Your task to perform on an android device: What's the weather going to be this weekend? Image 0: 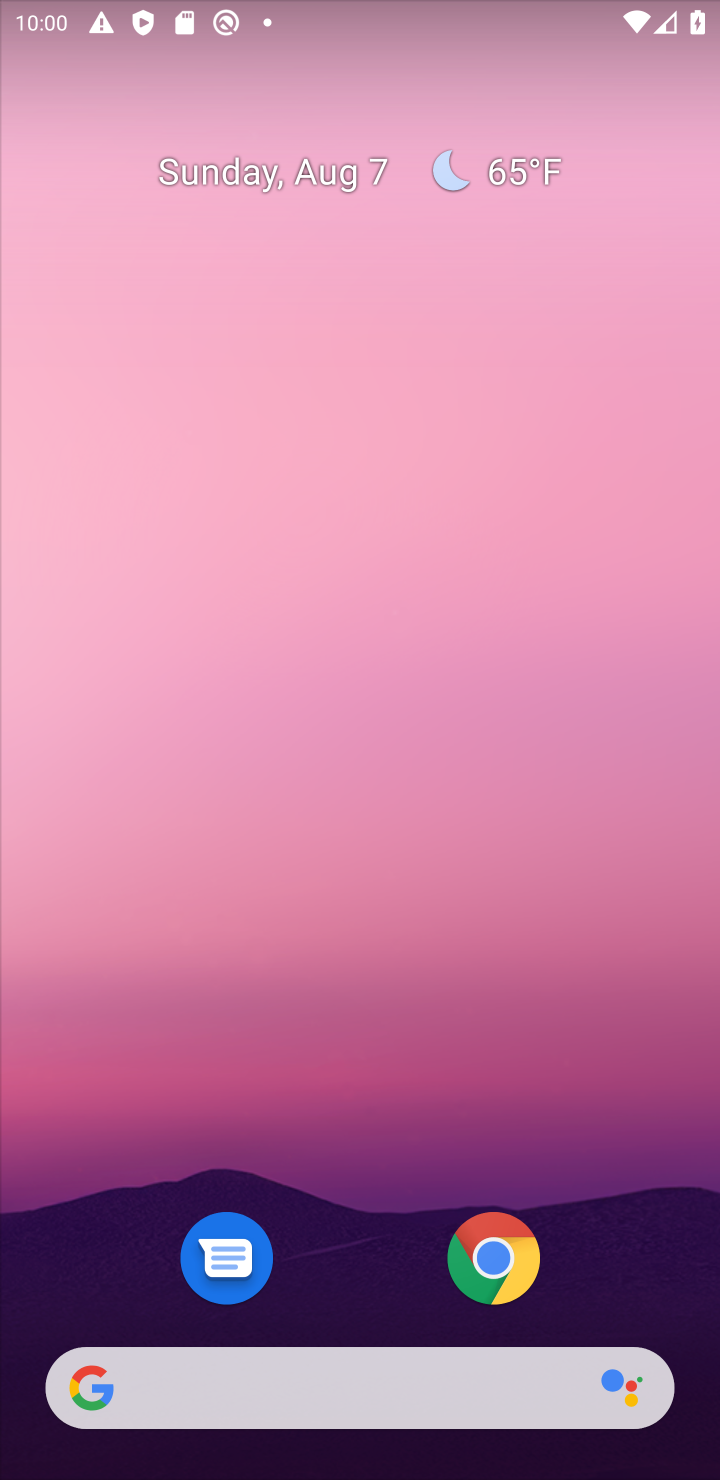
Step 0: drag from (609, 470) to (41, 800)
Your task to perform on an android device: What's the weather going to be this weekend? Image 1: 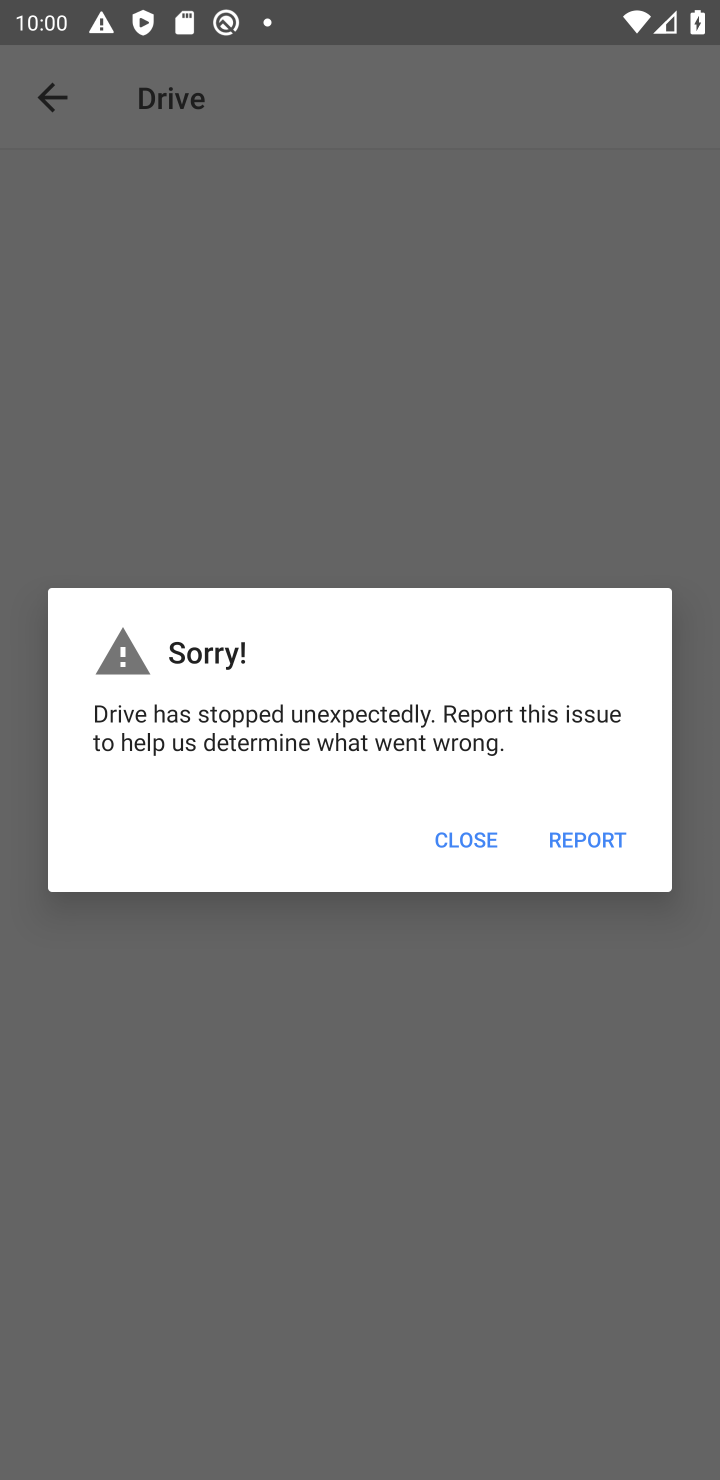
Step 1: press home button
Your task to perform on an android device: What's the weather going to be this weekend? Image 2: 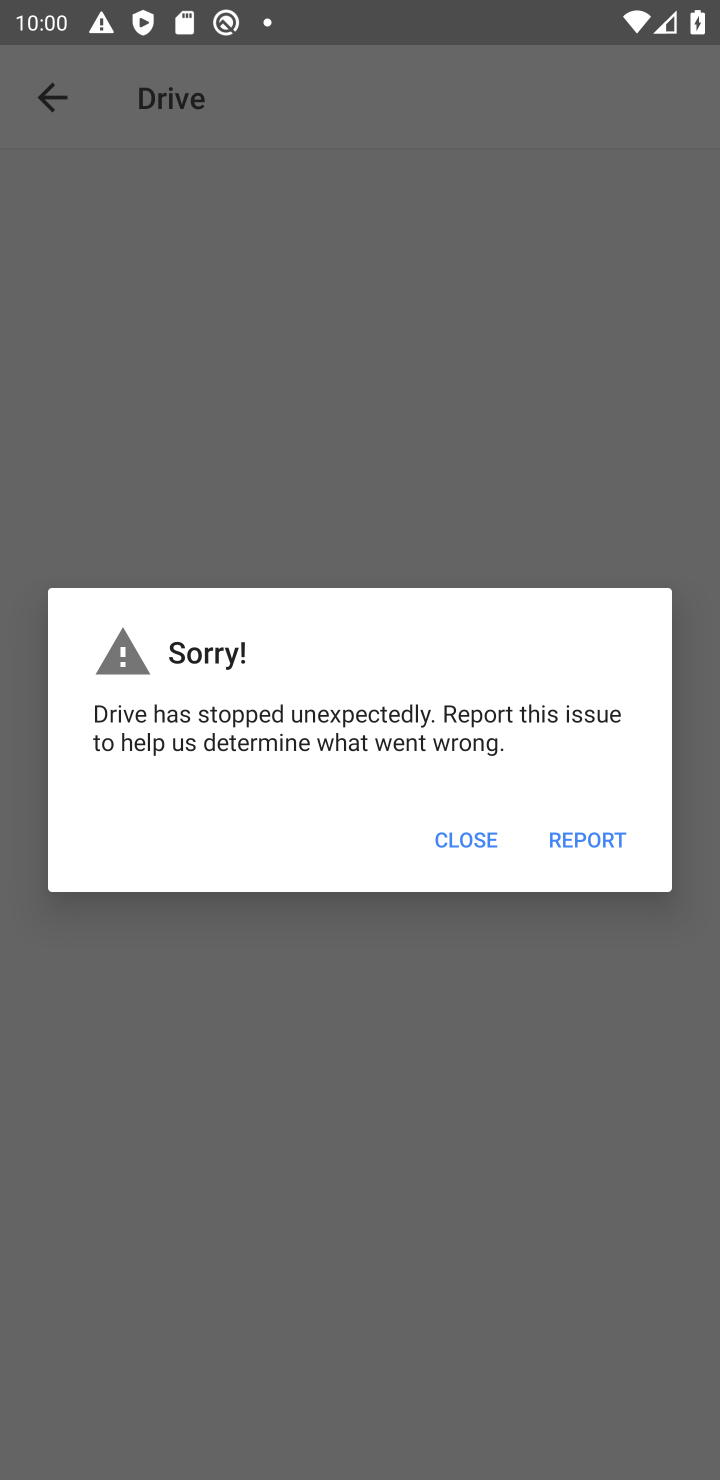
Step 2: press home button
Your task to perform on an android device: What's the weather going to be this weekend? Image 3: 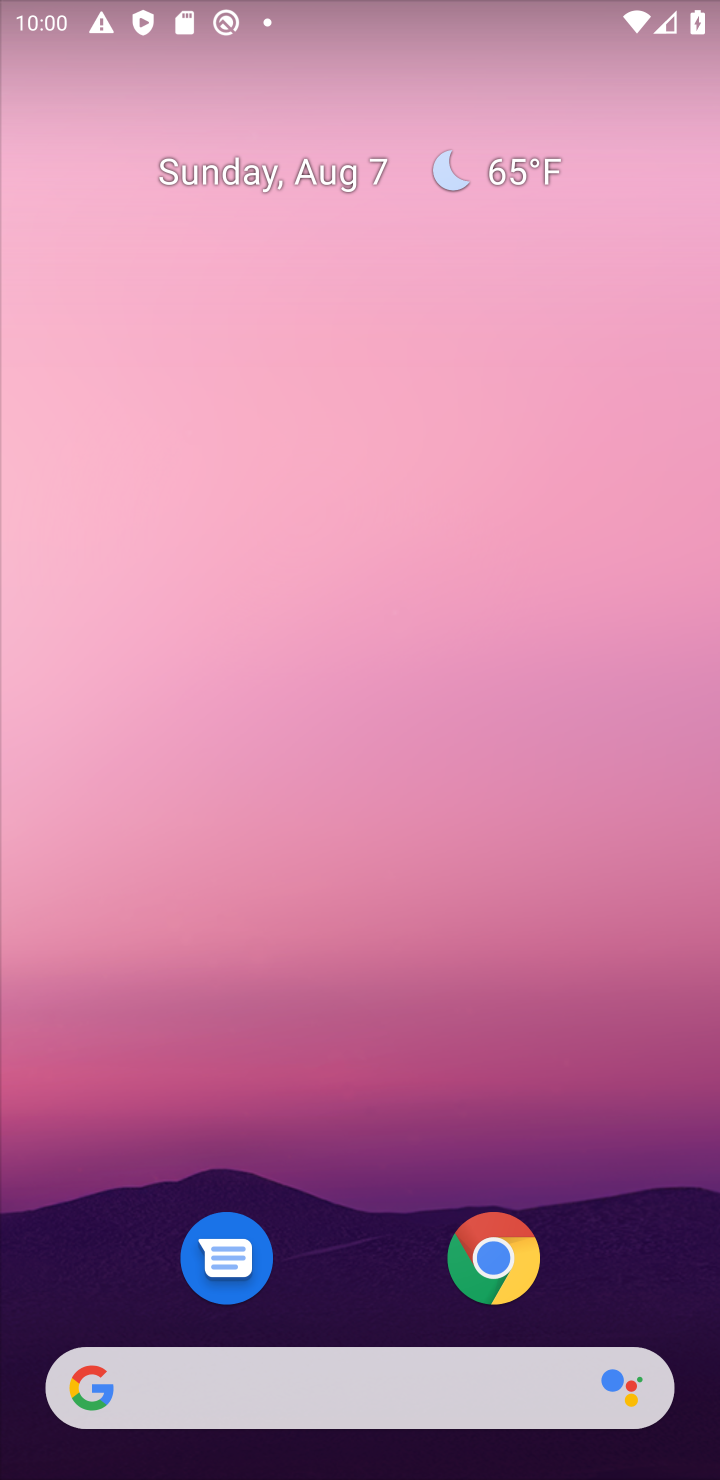
Step 3: drag from (297, 1138) to (155, 38)
Your task to perform on an android device: What's the weather going to be this weekend? Image 4: 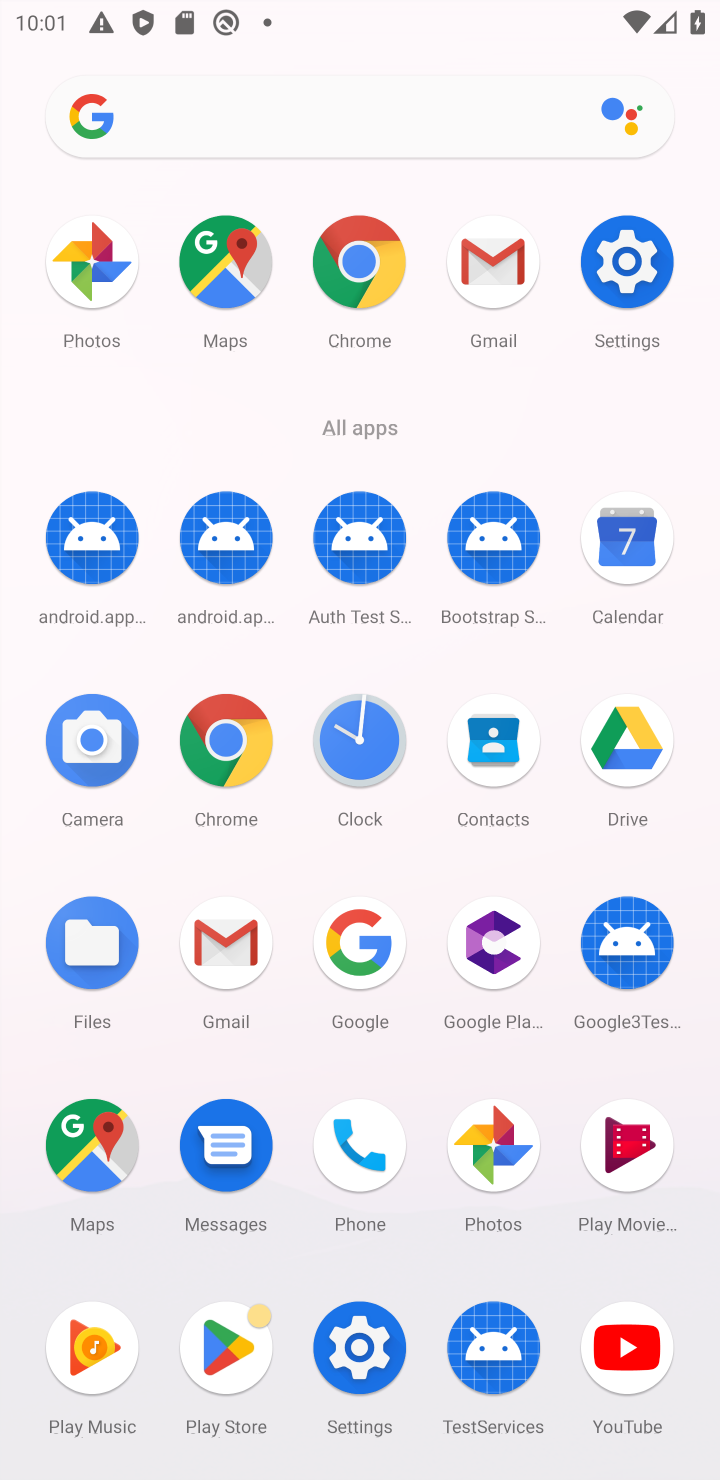
Step 4: click (383, 263)
Your task to perform on an android device: What's the weather going to be this weekend? Image 5: 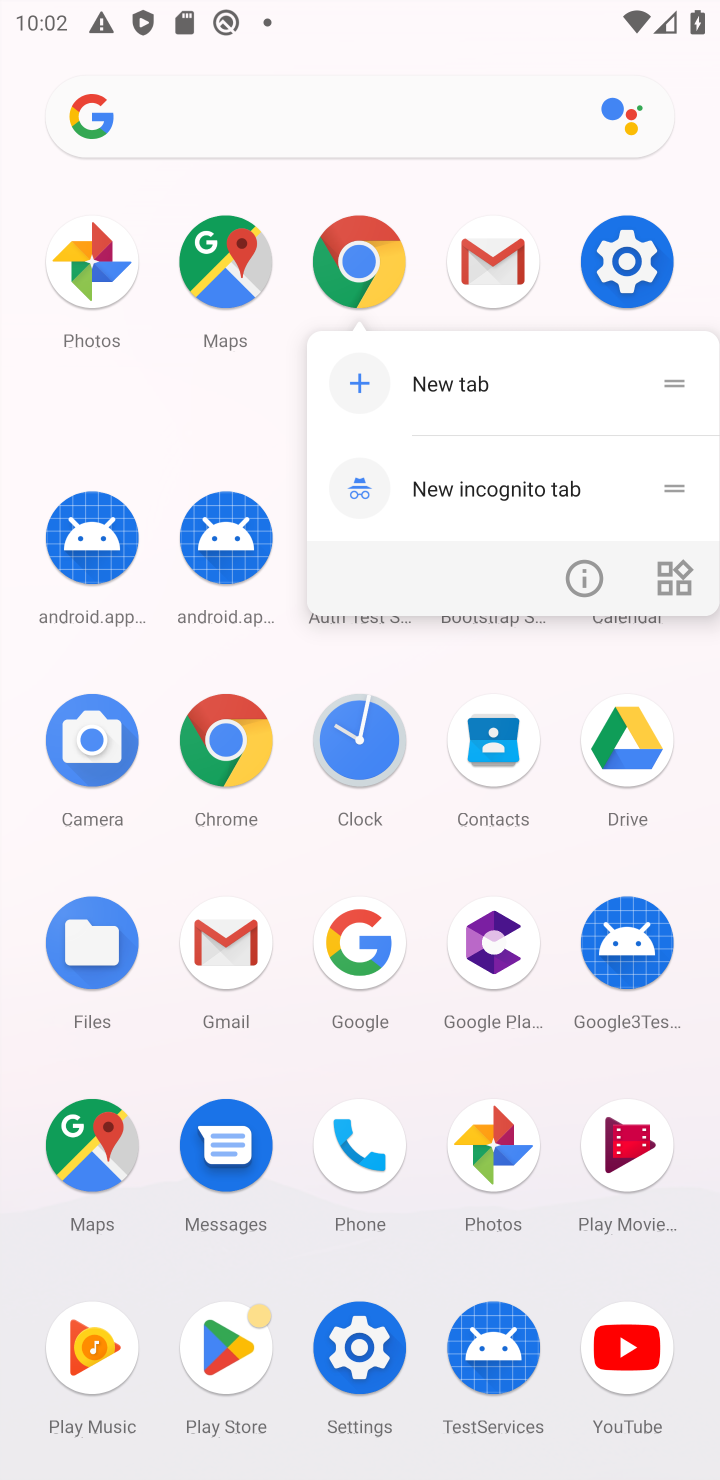
Step 5: click (372, 257)
Your task to perform on an android device: What's the weather going to be this weekend? Image 6: 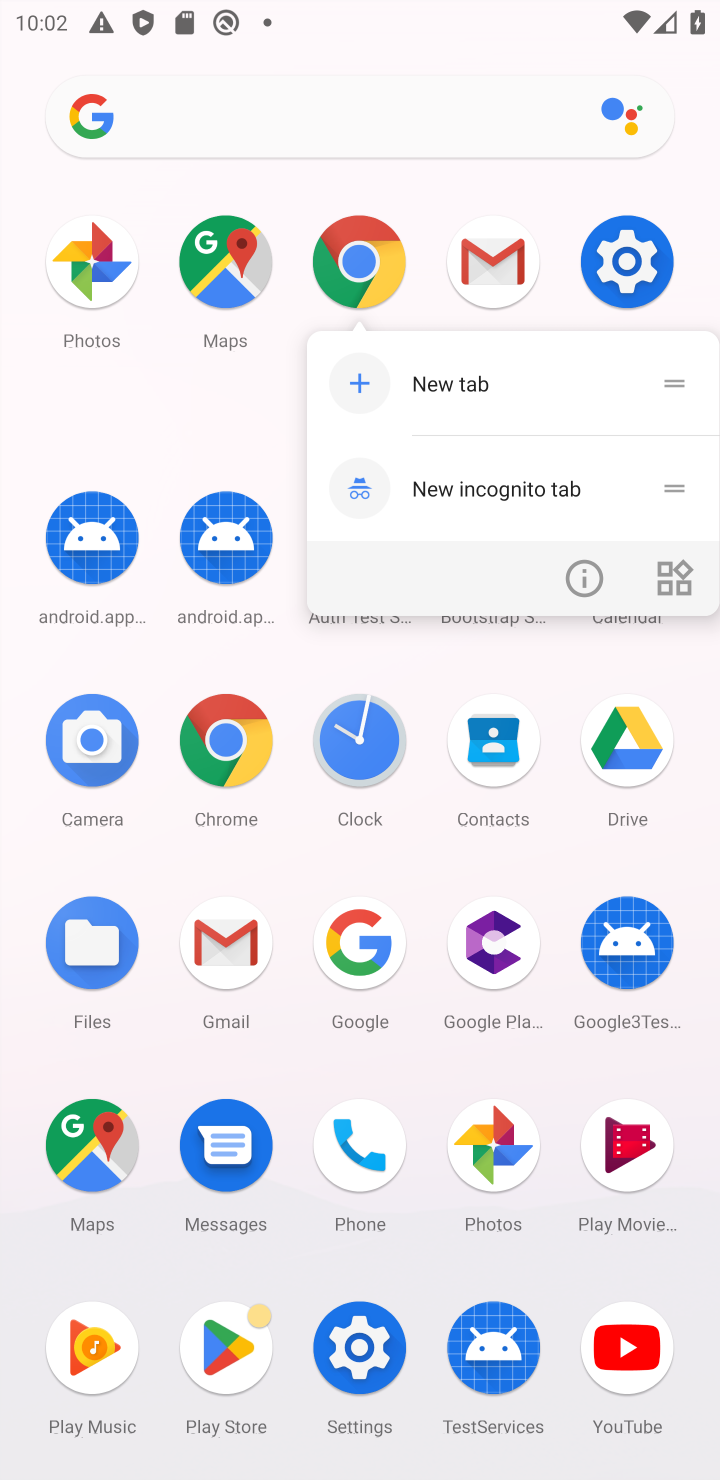
Step 6: click (372, 263)
Your task to perform on an android device: What's the weather going to be this weekend? Image 7: 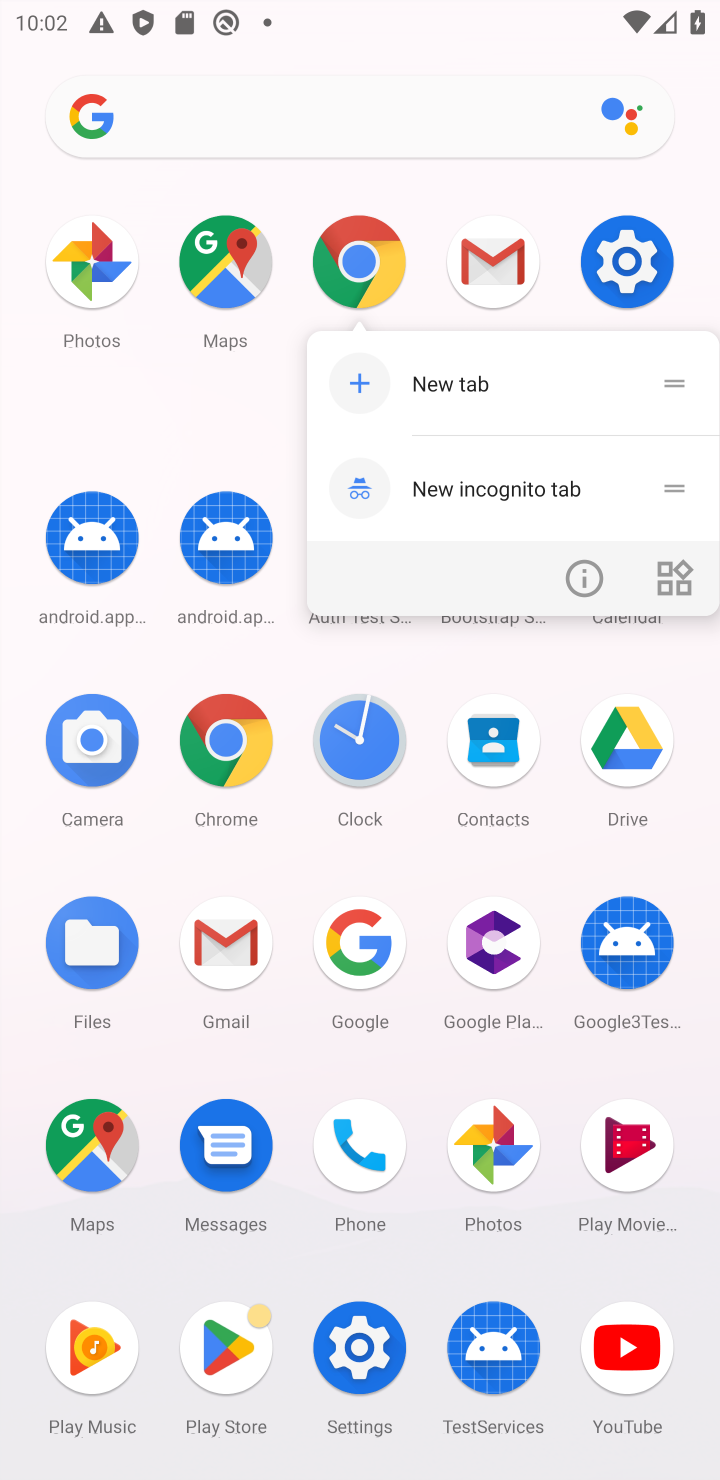
Step 7: click (372, 263)
Your task to perform on an android device: What's the weather going to be this weekend? Image 8: 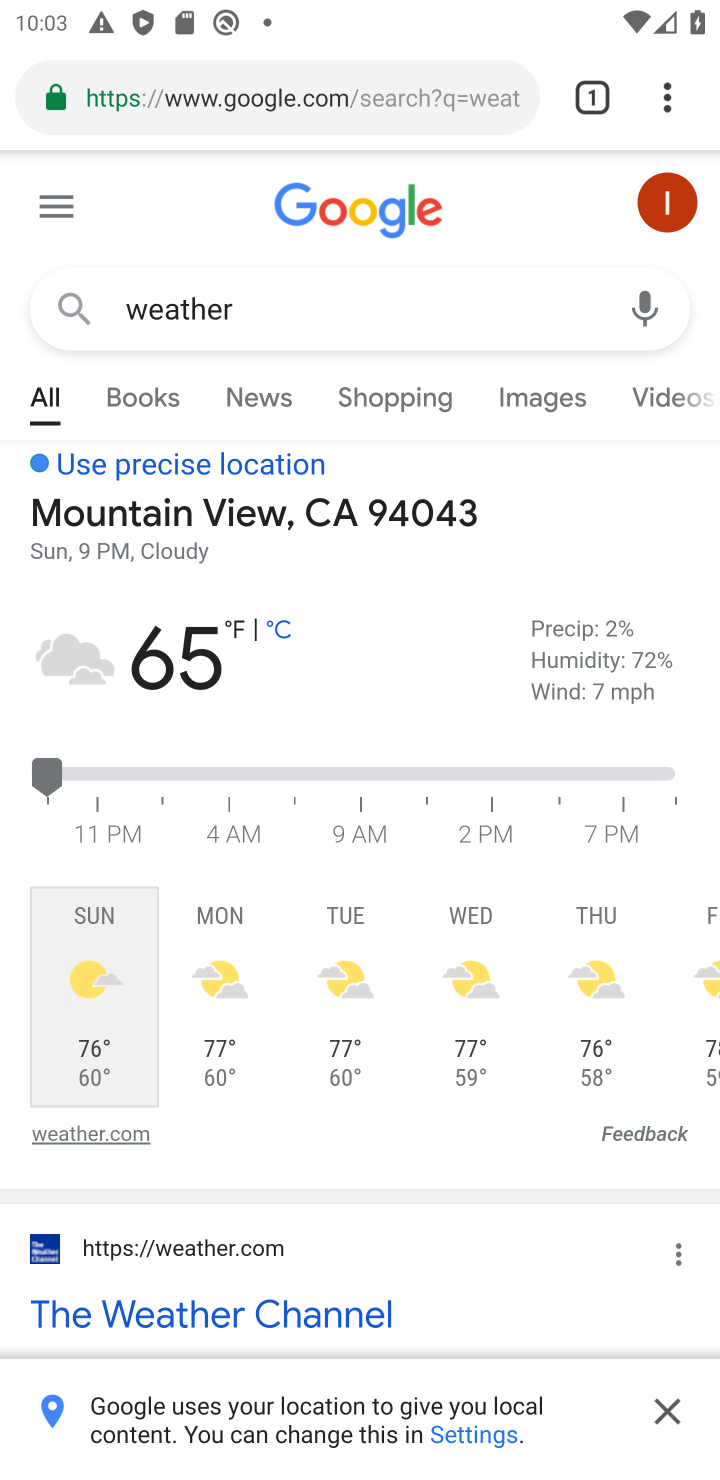
Step 8: click (405, 89)
Your task to perform on an android device: What's the weather going to be this weekend? Image 9: 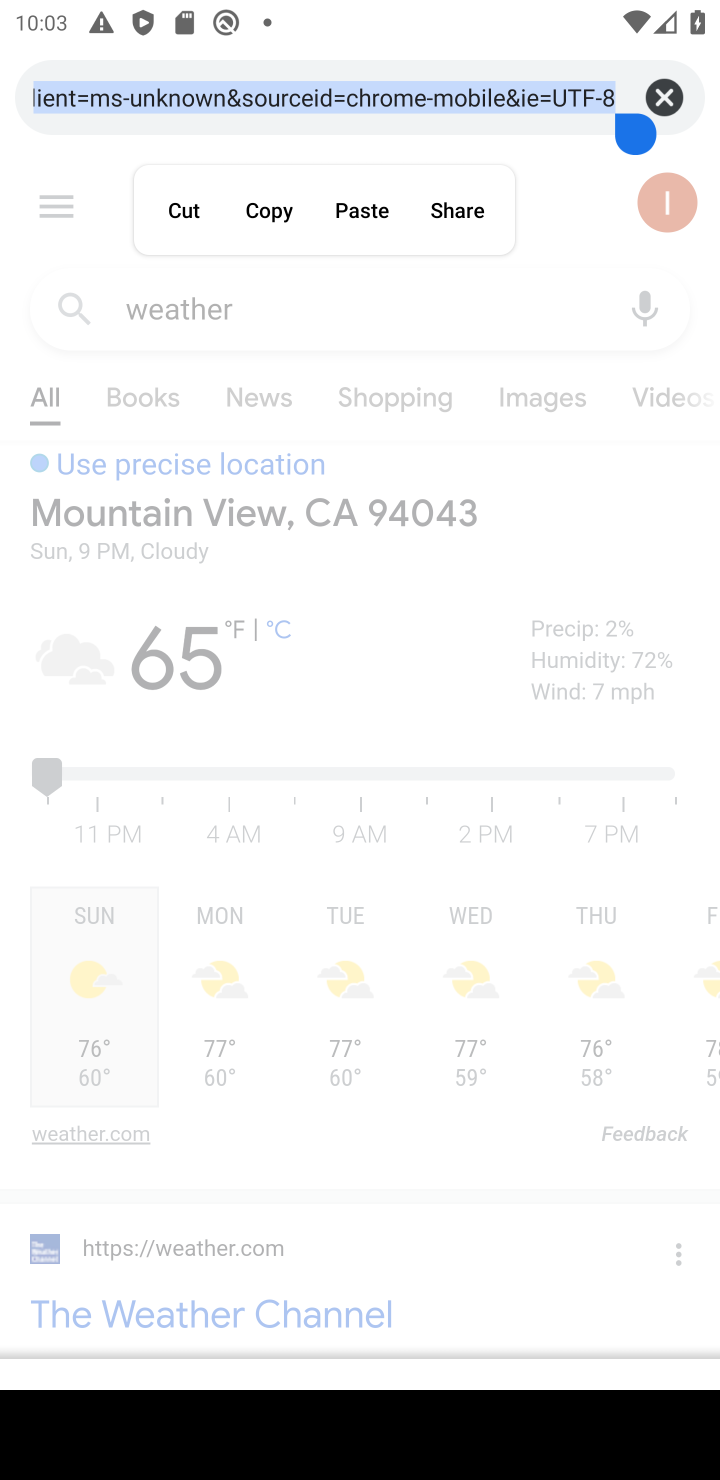
Step 9: type " What's the weather going to be this weekend?"
Your task to perform on an android device: What's the weather going to be this weekend? Image 10: 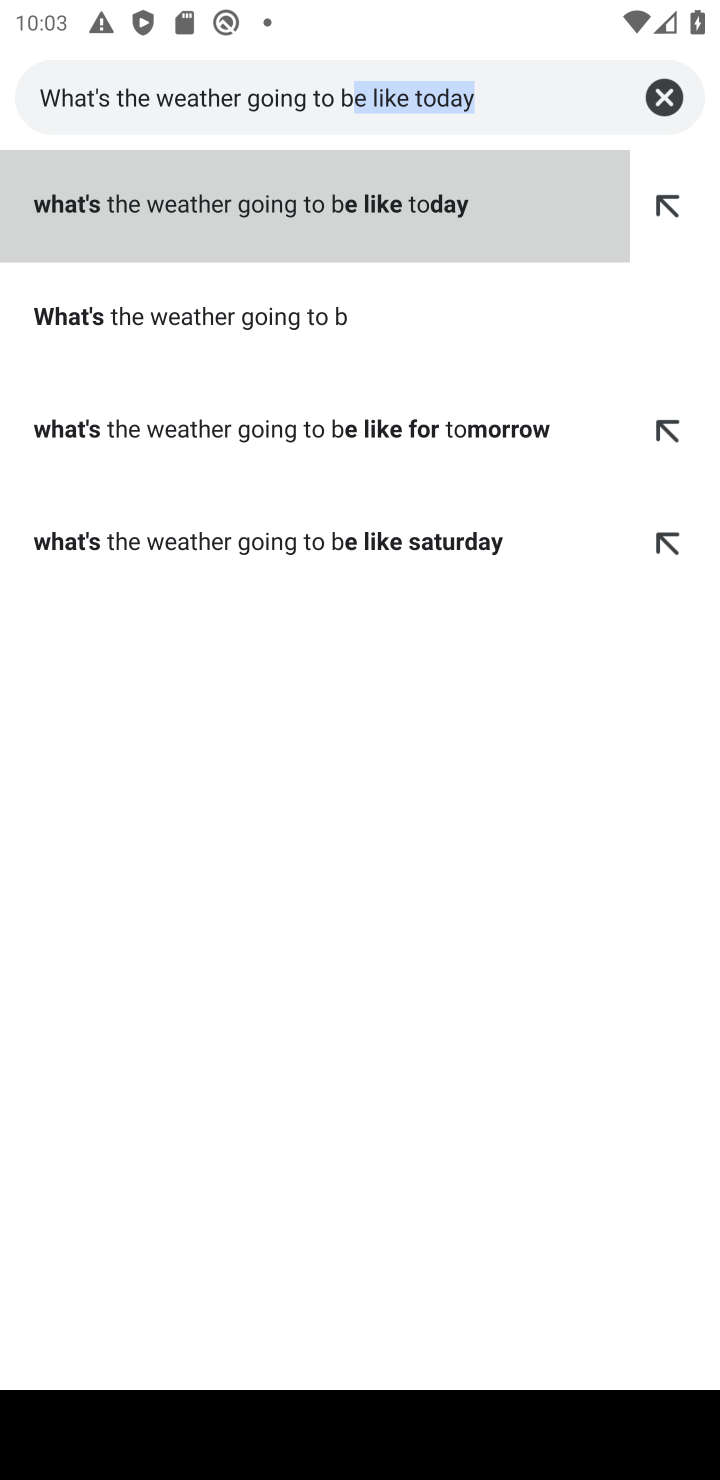
Step 10: type ""
Your task to perform on an android device: What's the weather going to be this weekend? Image 11: 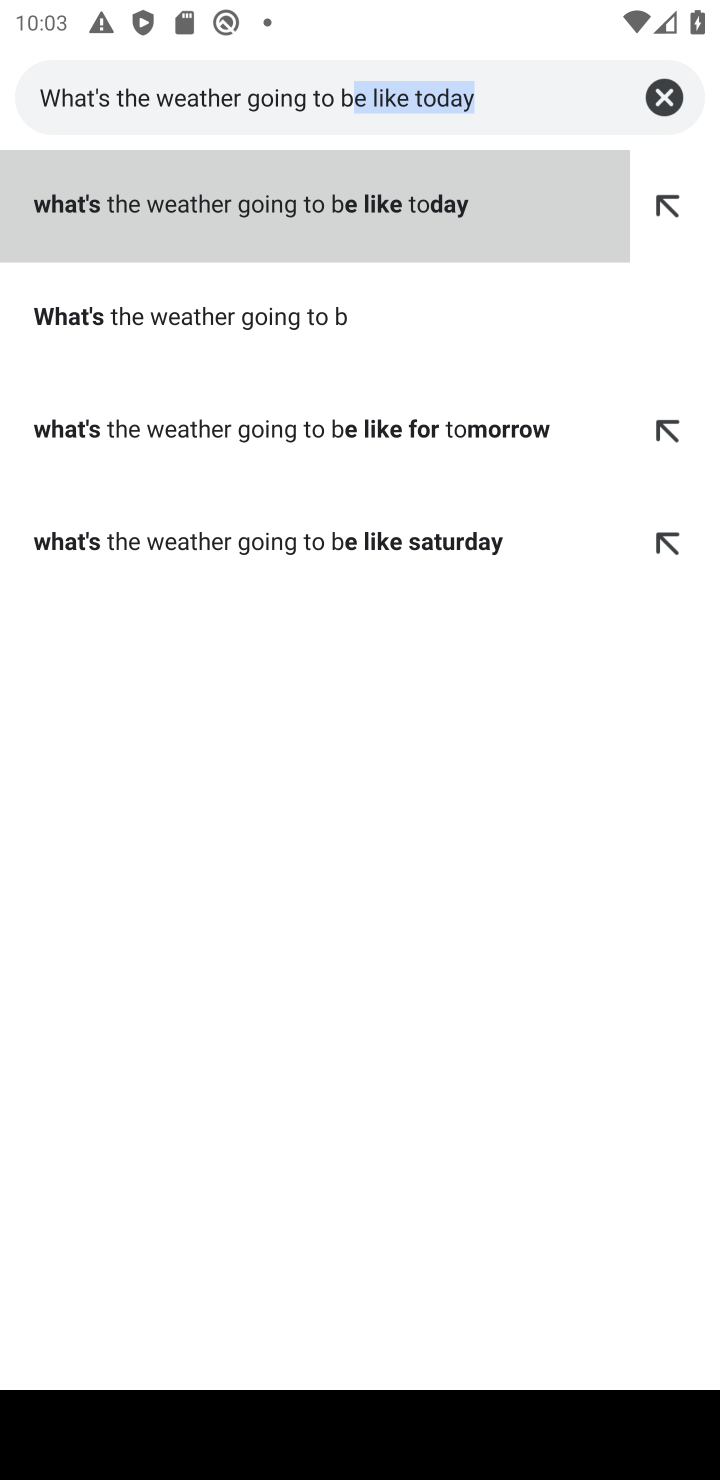
Step 11: click (215, 207)
Your task to perform on an android device: What's the weather going to be this weekend? Image 12: 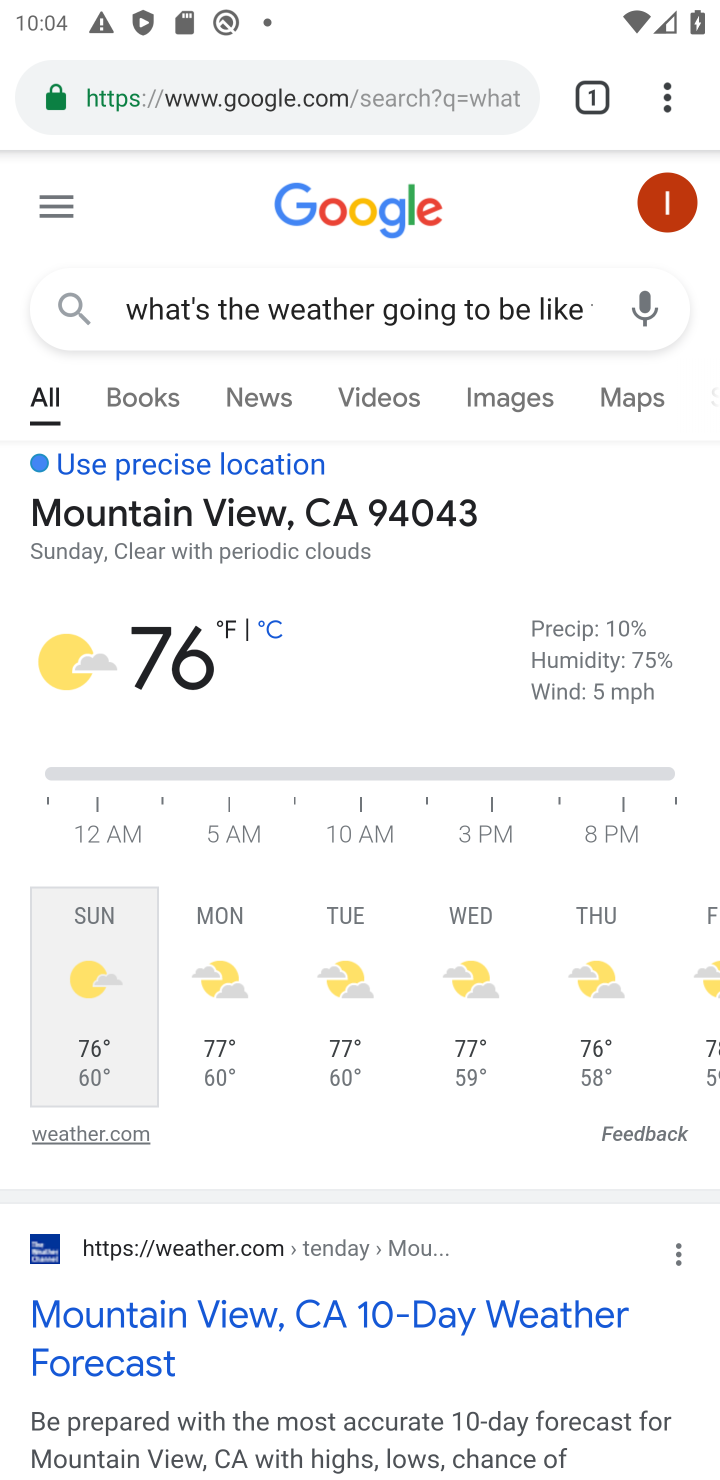
Step 12: task complete